Your task to perform on an android device: open a bookmark in the chrome app Image 0: 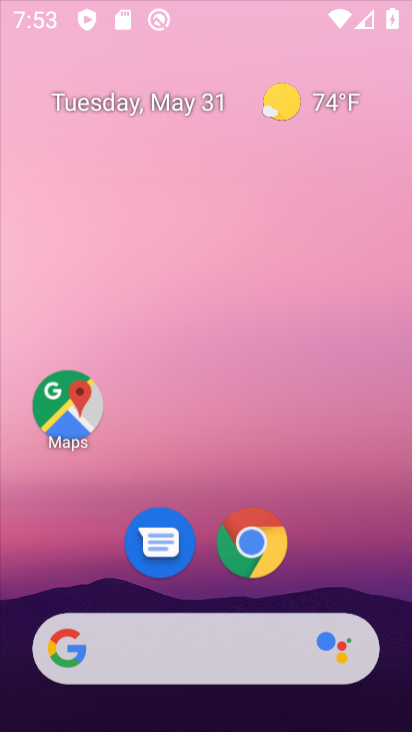
Step 0: click (228, 92)
Your task to perform on an android device: open a bookmark in the chrome app Image 1: 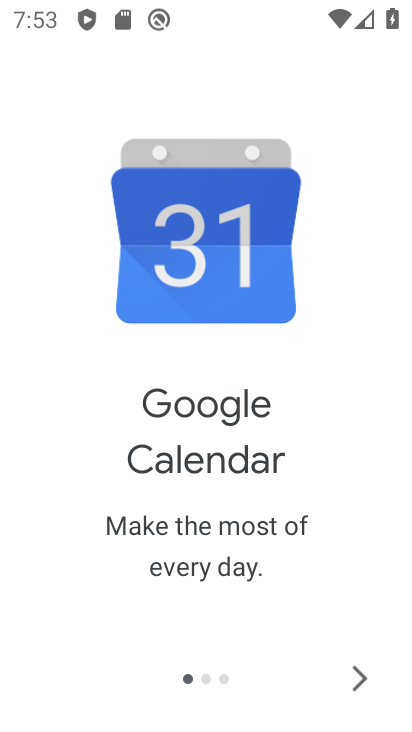
Step 1: press back button
Your task to perform on an android device: open a bookmark in the chrome app Image 2: 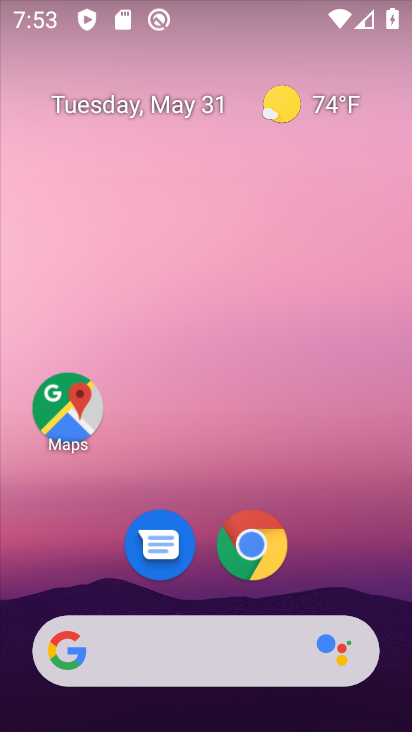
Step 2: drag from (346, 556) to (225, 32)
Your task to perform on an android device: open a bookmark in the chrome app Image 3: 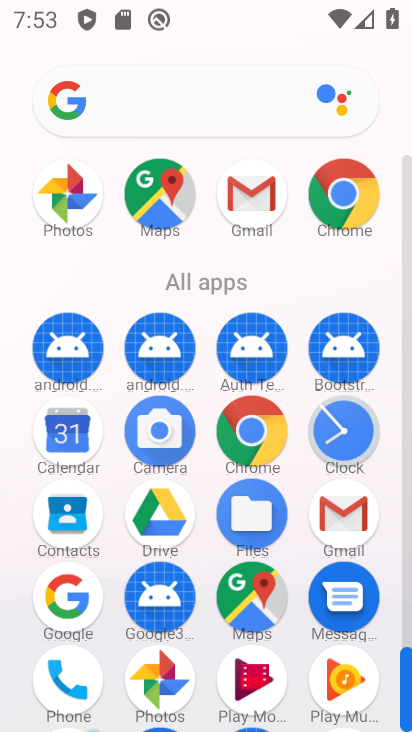
Step 3: click (249, 429)
Your task to perform on an android device: open a bookmark in the chrome app Image 4: 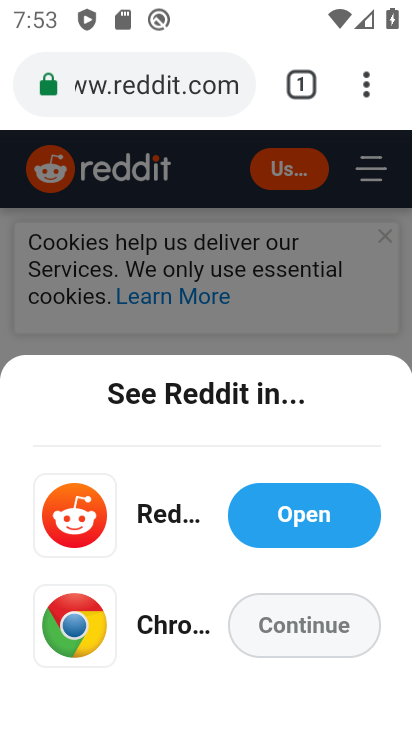
Step 4: drag from (367, 79) to (121, 316)
Your task to perform on an android device: open a bookmark in the chrome app Image 5: 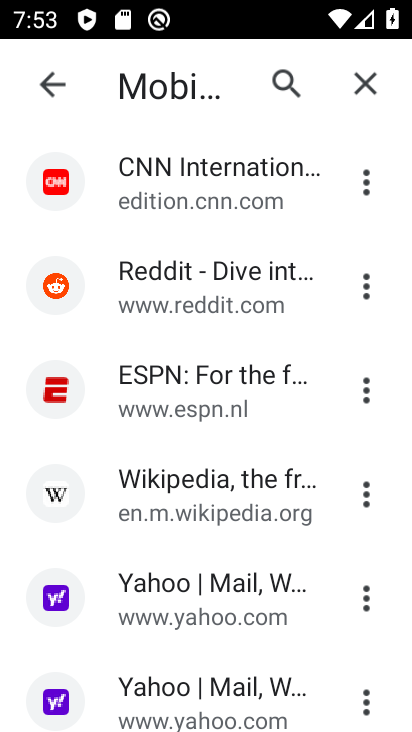
Step 5: click (193, 495)
Your task to perform on an android device: open a bookmark in the chrome app Image 6: 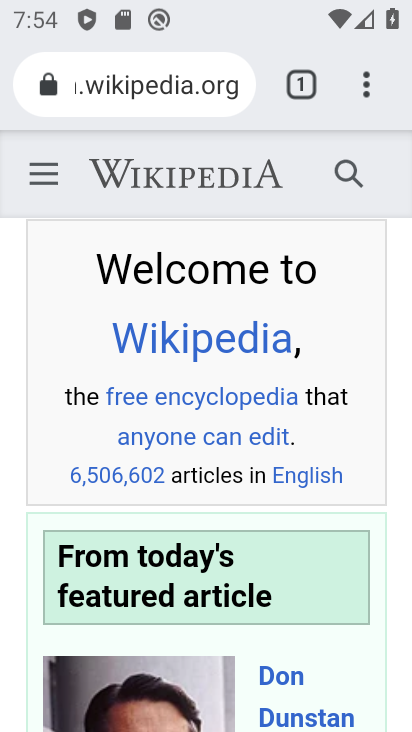
Step 6: task complete